Your task to perform on an android device: turn off data saver in the chrome app Image 0: 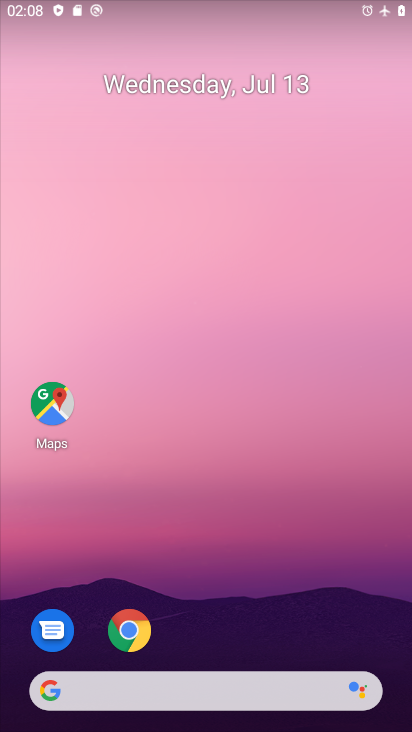
Step 0: click (149, 625)
Your task to perform on an android device: turn off data saver in the chrome app Image 1: 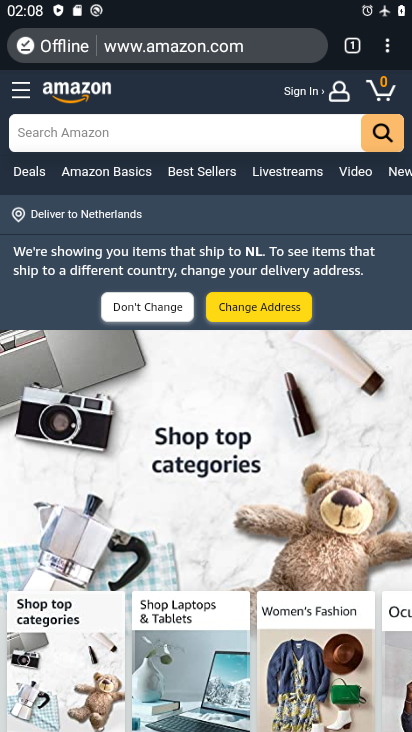
Step 1: click (391, 62)
Your task to perform on an android device: turn off data saver in the chrome app Image 2: 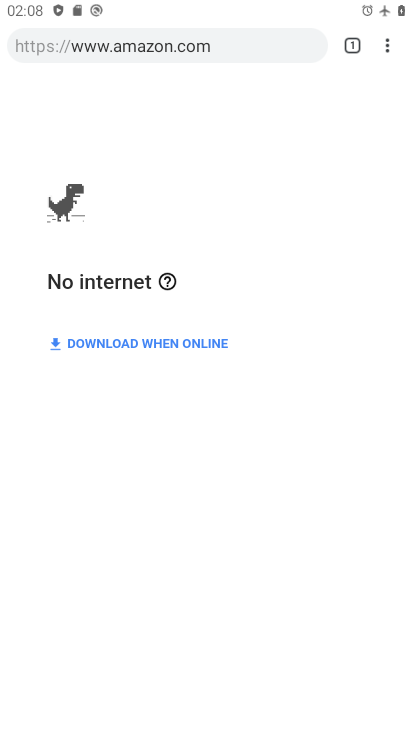
Step 2: click (391, 62)
Your task to perform on an android device: turn off data saver in the chrome app Image 3: 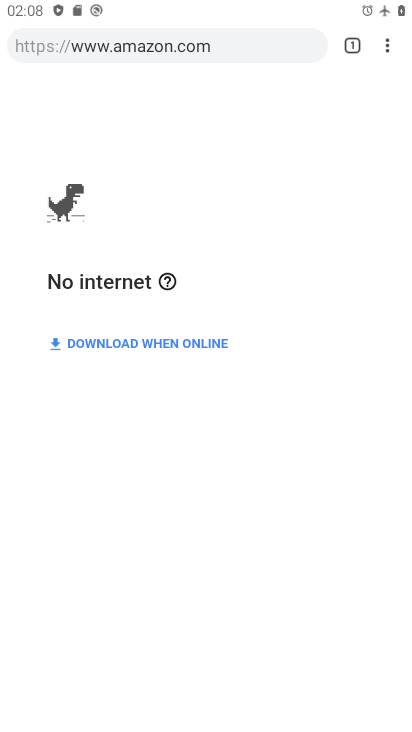
Step 3: drag from (391, 40) to (261, 512)
Your task to perform on an android device: turn off data saver in the chrome app Image 4: 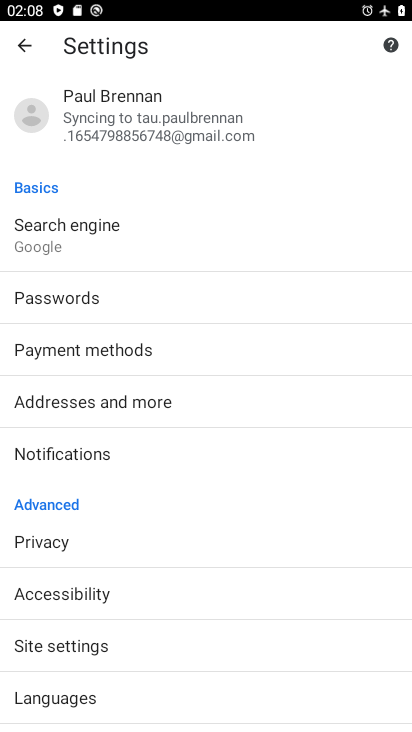
Step 4: drag from (127, 675) to (157, 430)
Your task to perform on an android device: turn off data saver in the chrome app Image 5: 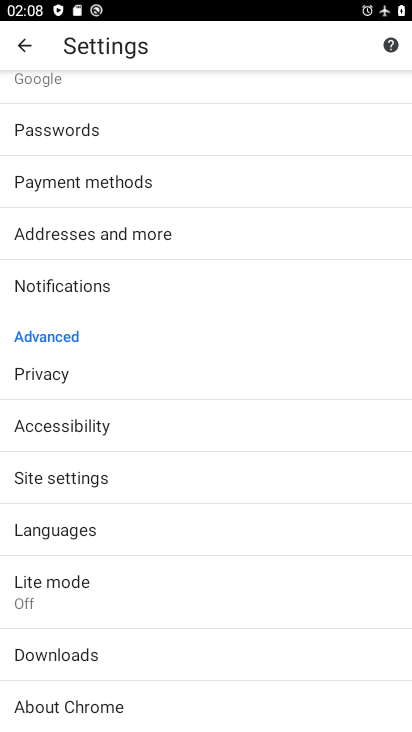
Step 5: click (153, 581)
Your task to perform on an android device: turn off data saver in the chrome app Image 6: 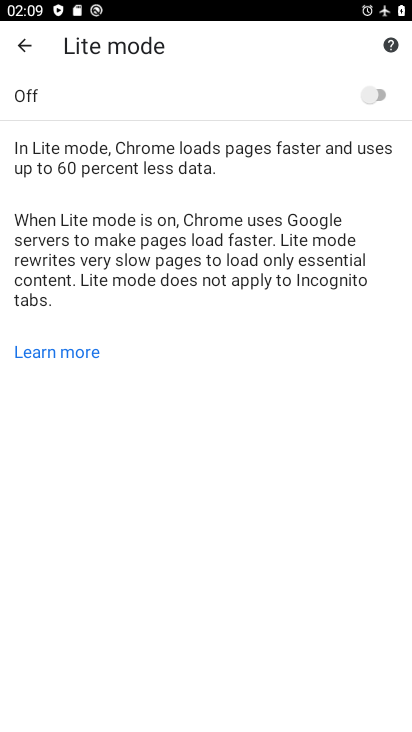
Step 6: task complete